Your task to perform on an android device: turn on bluetooth scan Image 0: 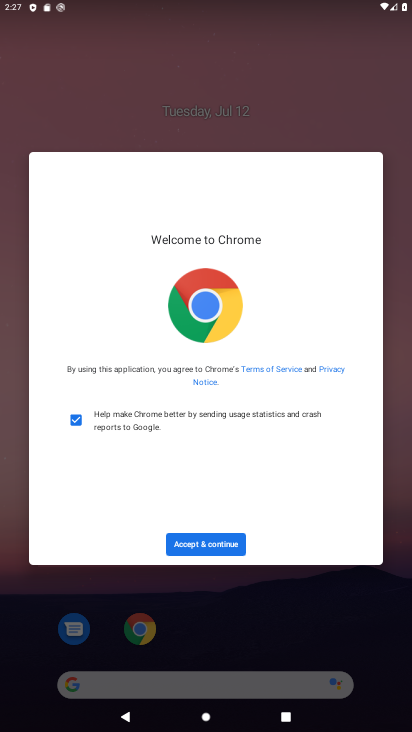
Step 0: press home button
Your task to perform on an android device: turn on bluetooth scan Image 1: 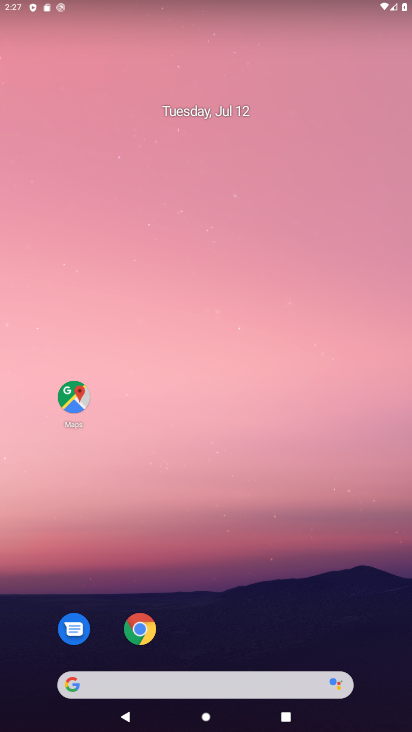
Step 1: drag from (209, 624) to (257, 189)
Your task to perform on an android device: turn on bluetooth scan Image 2: 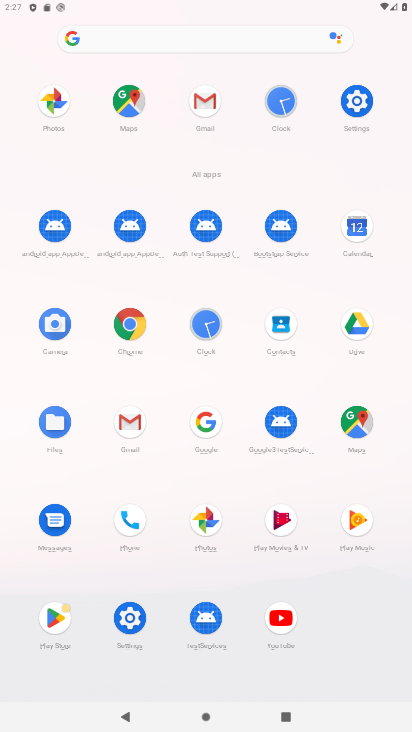
Step 2: click (358, 103)
Your task to perform on an android device: turn on bluetooth scan Image 3: 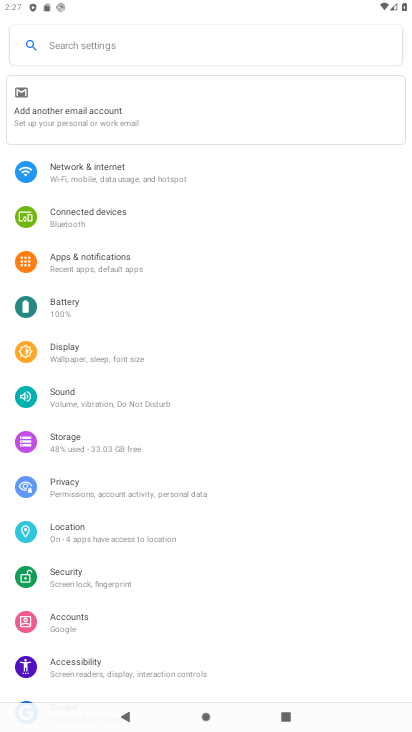
Step 3: click (83, 536)
Your task to perform on an android device: turn on bluetooth scan Image 4: 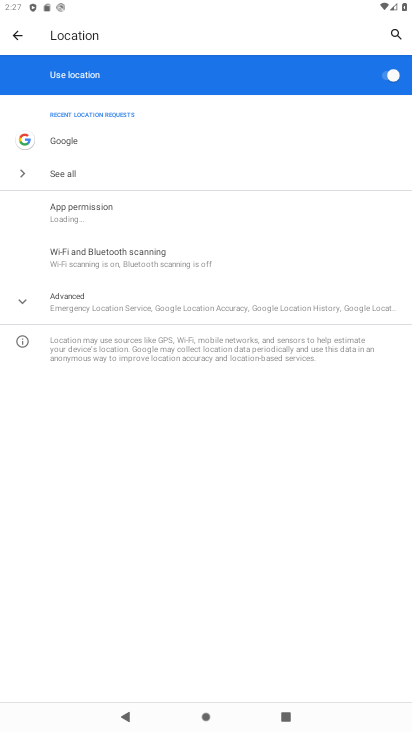
Step 4: click (166, 262)
Your task to perform on an android device: turn on bluetooth scan Image 5: 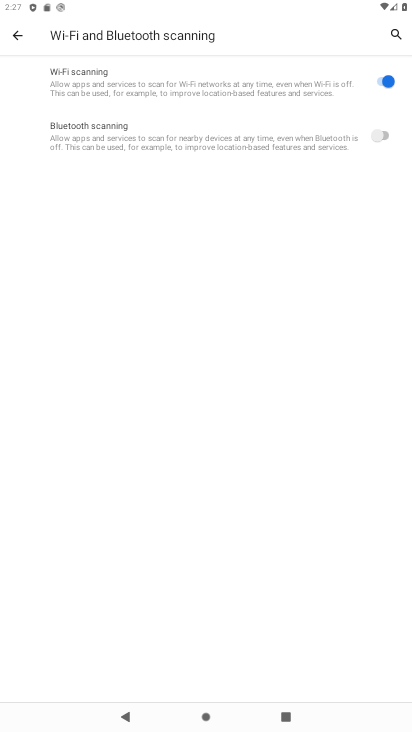
Step 5: click (381, 137)
Your task to perform on an android device: turn on bluetooth scan Image 6: 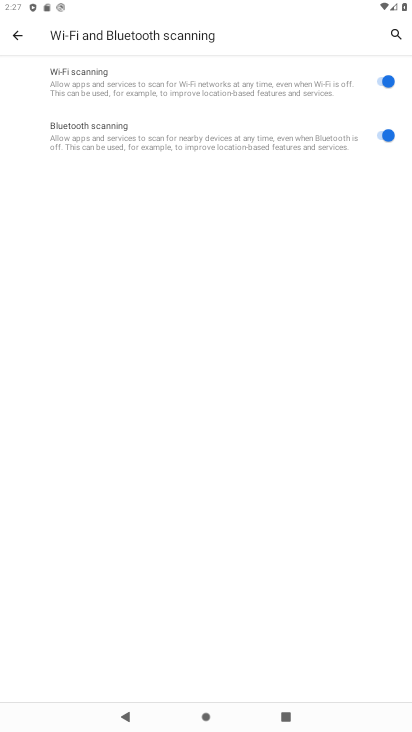
Step 6: task complete